Your task to perform on an android device: Open sound settings Image 0: 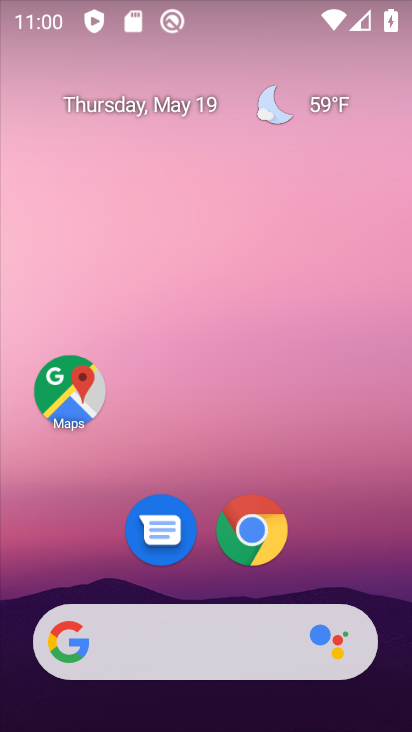
Step 0: drag from (357, 557) to (400, 189)
Your task to perform on an android device: Open sound settings Image 1: 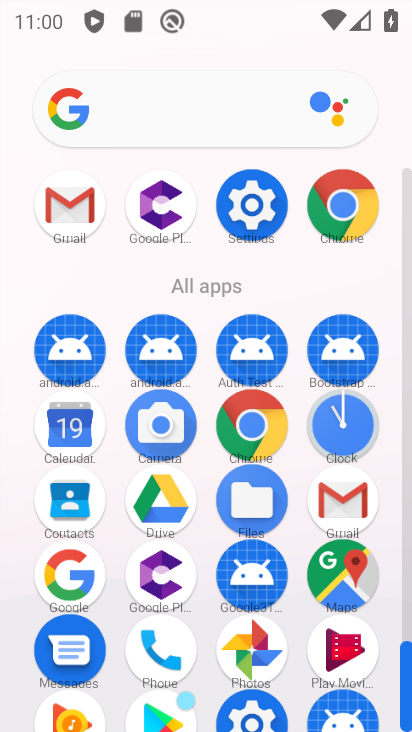
Step 1: click (248, 225)
Your task to perform on an android device: Open sound settings Image 2: 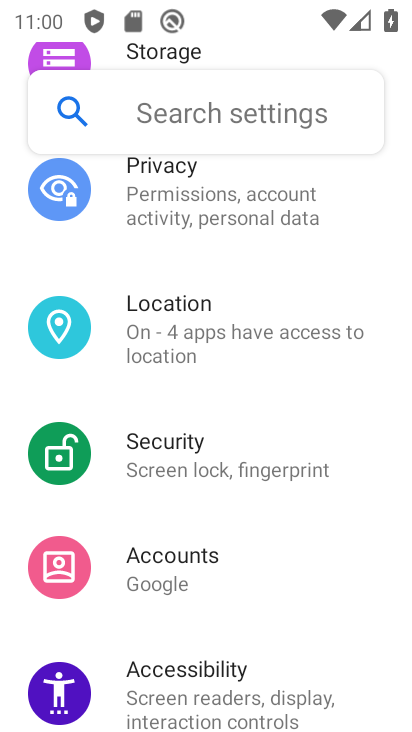
Step 2: drag from (266, 223) to (281, 558)
Your task to perform on an android device: Open sound settings Image 3: 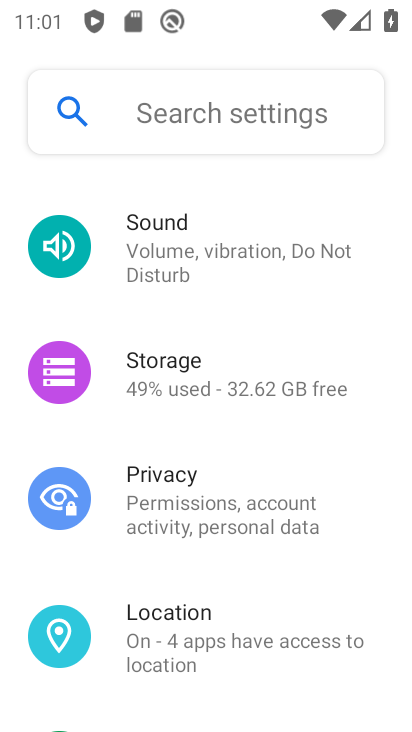
Step 3: drag from (237, 590) to (232, 289)
Your task to perform on an android device: Open sound settings Image 4: 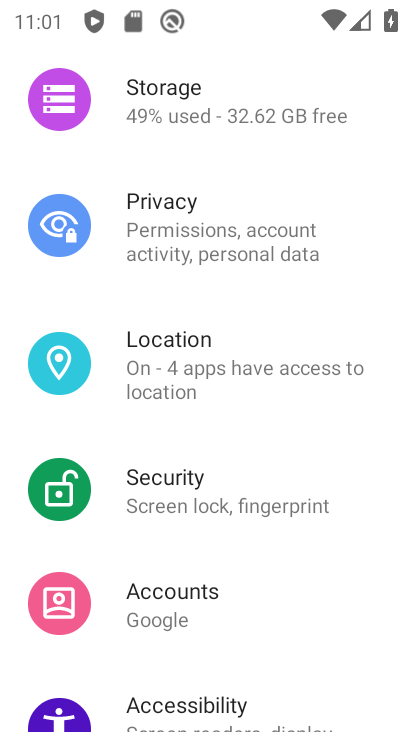
Step 4: drag from (230, 634) to (234, 408)
Your task to perform on an android device: Open sound settings Image 5: 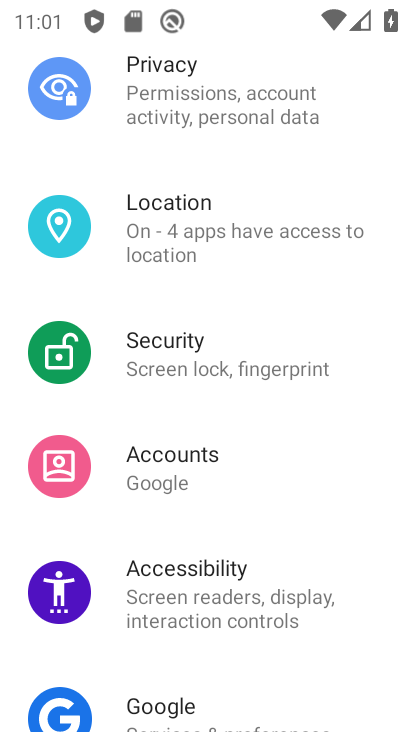
Step 5: drag from (241, 147) to (252, 695)
Your task to perform on an android device: Open sound settings Image 6: 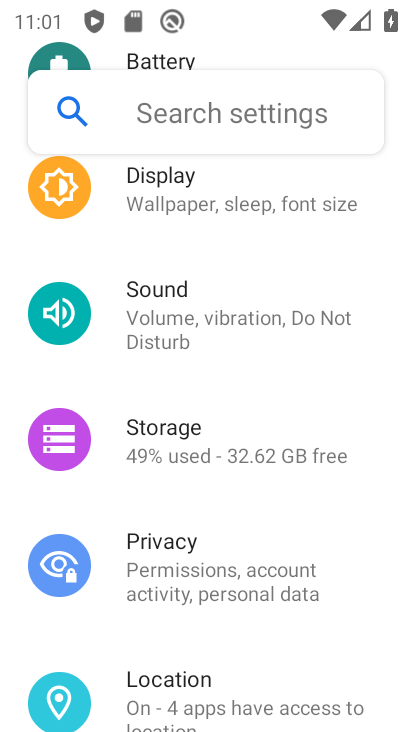
Step 6: click (221, 311)
Your task to perform on an android device: Open sound settings Image 7: 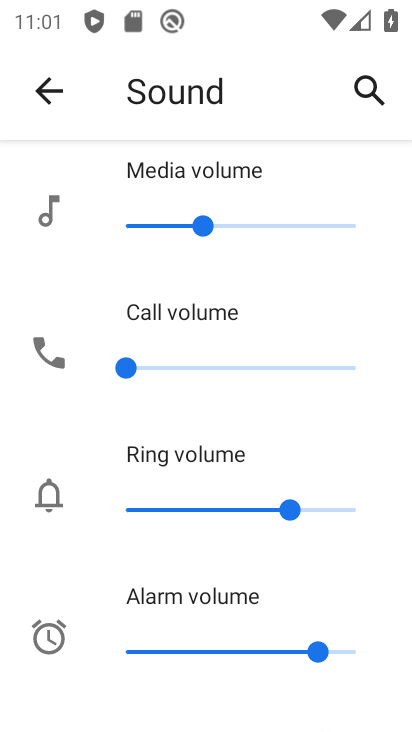
Step 7: task complete